Your task to perform on an android device: toggle show notifications on the lock screen Image 0: 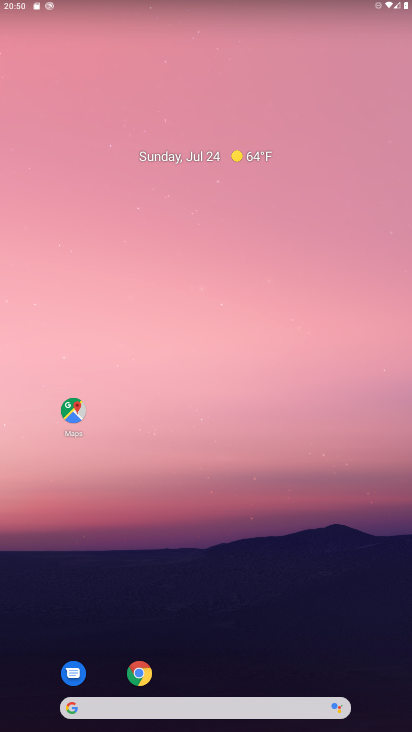
Step 0: drag from (270, 622) to (244, 99)
Your task to perform on an android device: toggle show notifications on the lock screen Image 1: 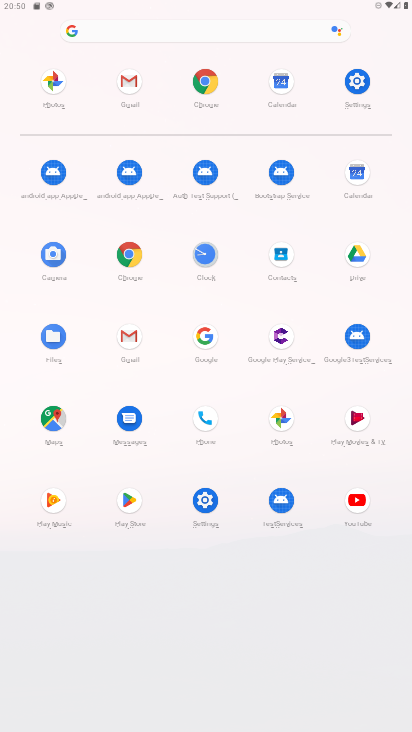
Step 1: click (362, 83)
Your task to perform on an android device: toggle show notifications on the lock screen Image 2: 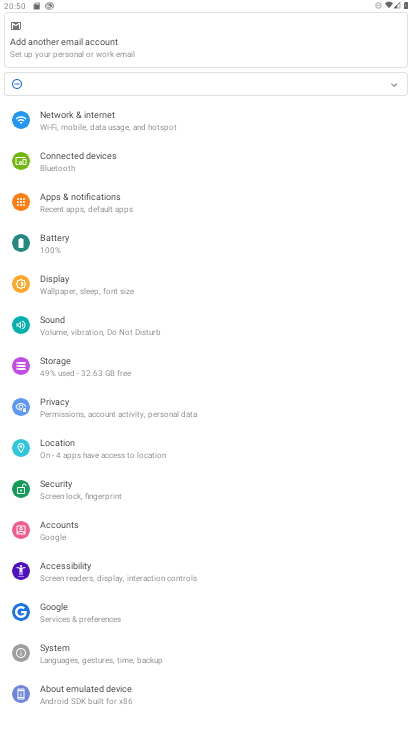
Step 2: click (133, 200)
Your task to perform on an android device: toggle show notifications on the lock screen Image 3: 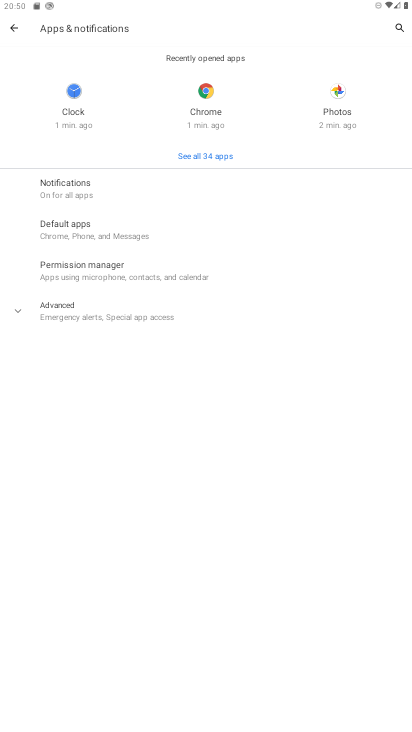
Step 3: click (112, 190)
Your task to perform on an android device: toggle show notifications on the lock screen Image 4: 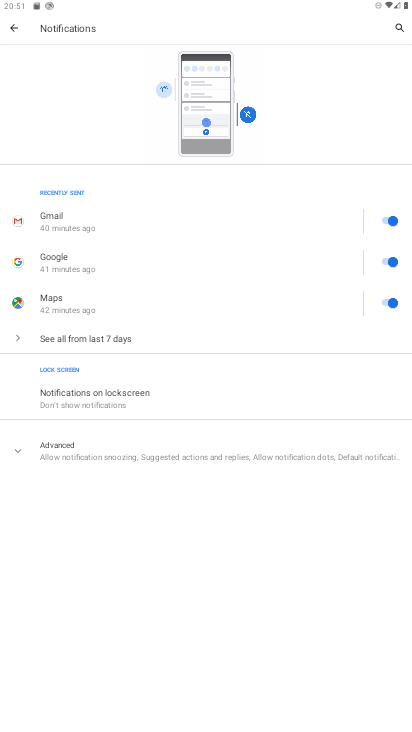
Step 4: click (129, 400)
Your task to perform on an android device: toggle show notifications on the lock screen Image 5: 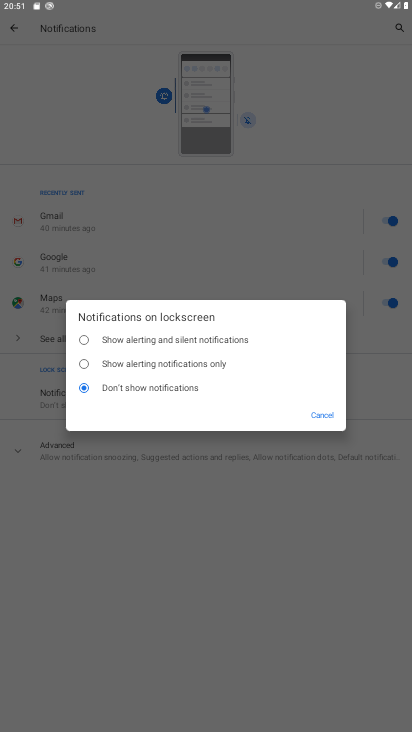
Step 5: click (141, 335)
Your task to perform on an android device: toggle show notifications on the lock screen Image 6: 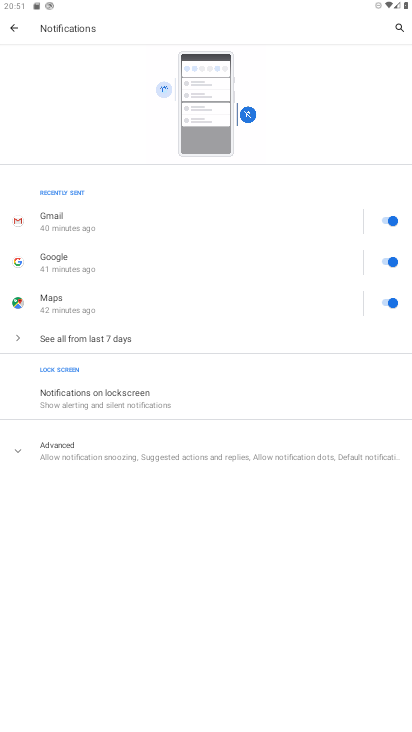
Step 6: task complete